Your task to perform on an android device: Add "usb-c to usb-a" to the cart on walmart.com Image 0: 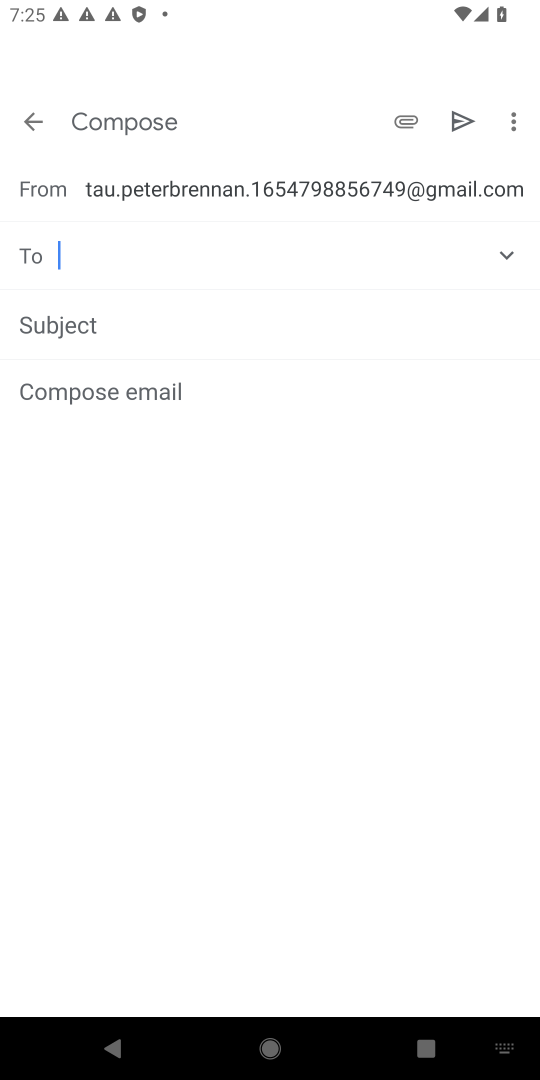
Step 0: press home button
Your task to perform on an android device: Add "usb-c to usb-a" to the cart on walmart.com Image 1: 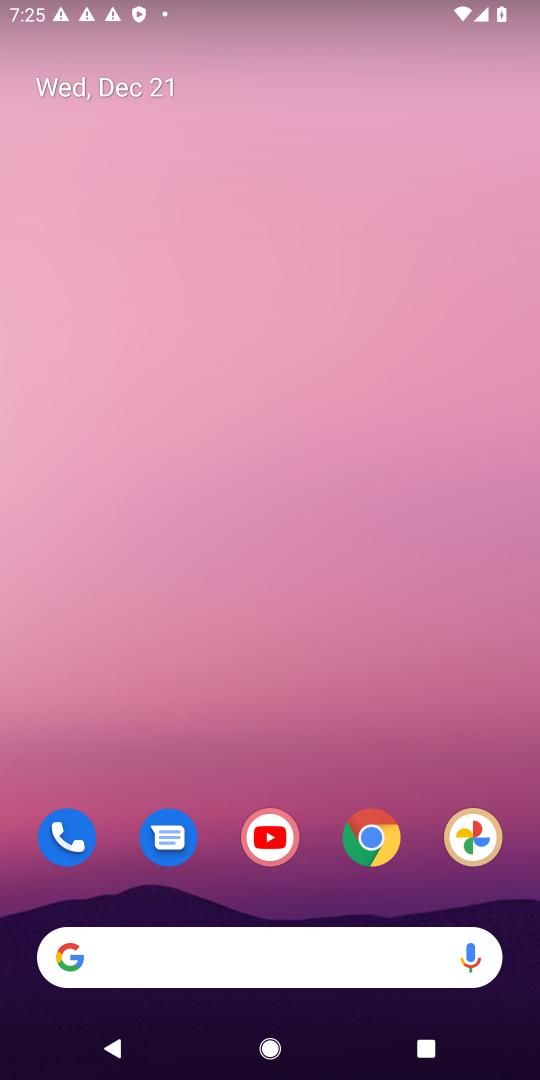
Step 1: drag from (141, 871) to (135, 408)
Your task to perform on an android device: Add "usb-c to usb-a" to the cart on walmart.com Image 2: 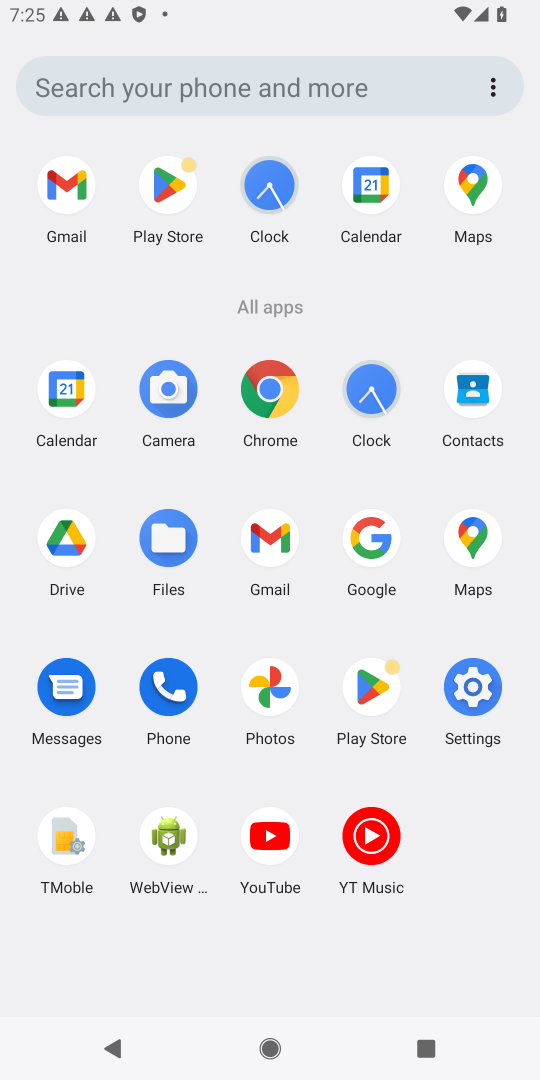
Step 2: click (373, 542)
Your task to perform on an android device: Add "usb-c to usb-a" to the cart on walmart.com Image 3: 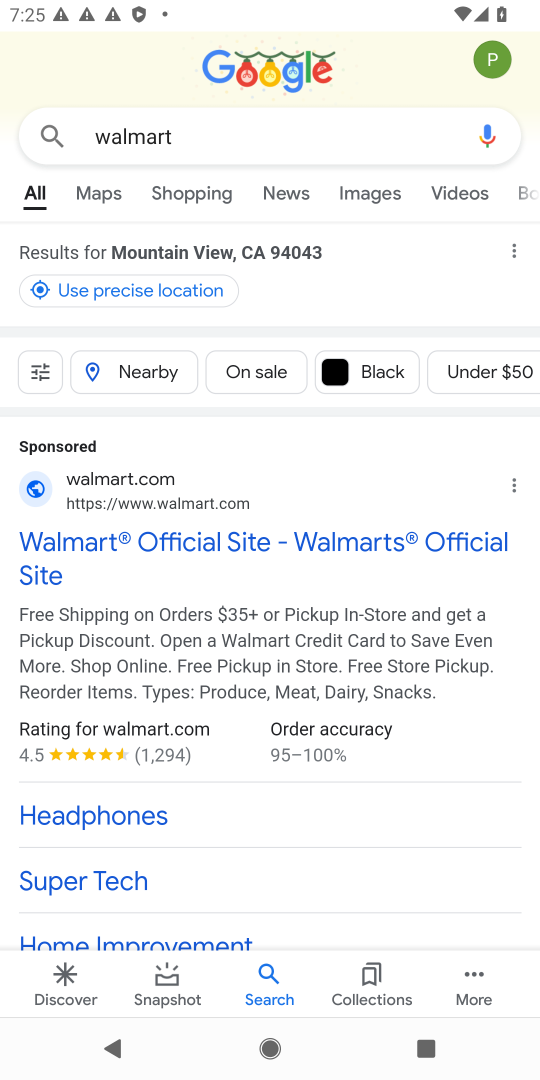
Step 3: click (178, 559)
Your task to perform on an android device: Add "usb-c to usb-a" to the cart on walmart.com Image 4: 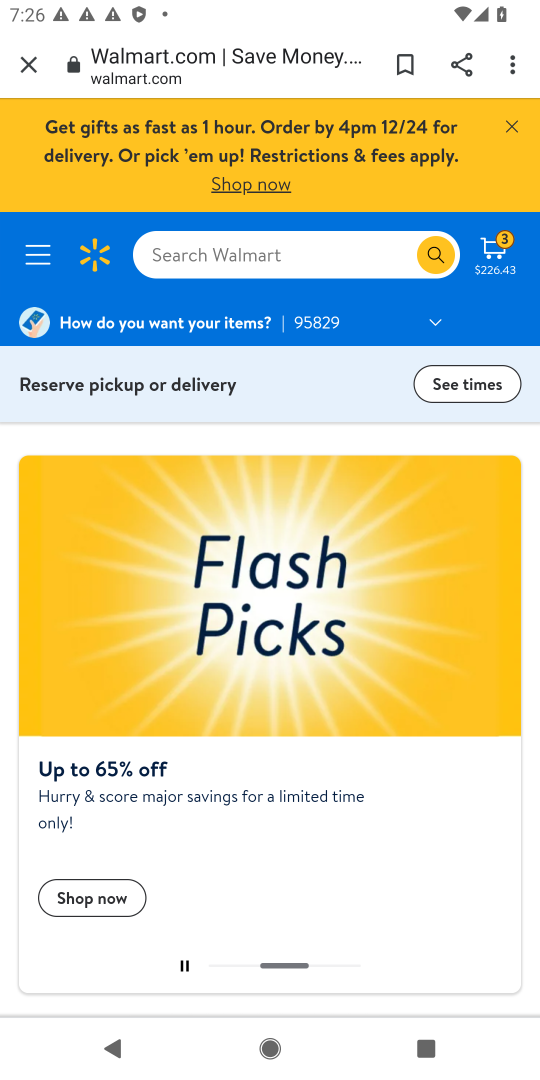
Step 4: click (283, 250)
Your task to perform on an android device: Add "usb-c to usb-a" to the cart on walmart.com Image 5: 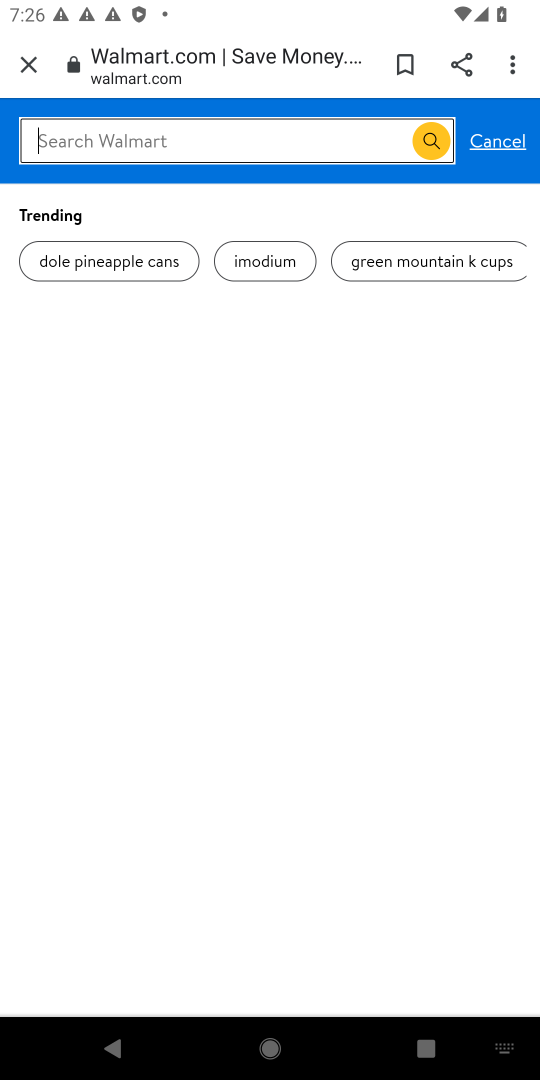
Step 5: type "usb-c to usb-a"
Your task to perform on an android device: Add "usb-c to usb-a" to the cart on walmart.com Image 6: 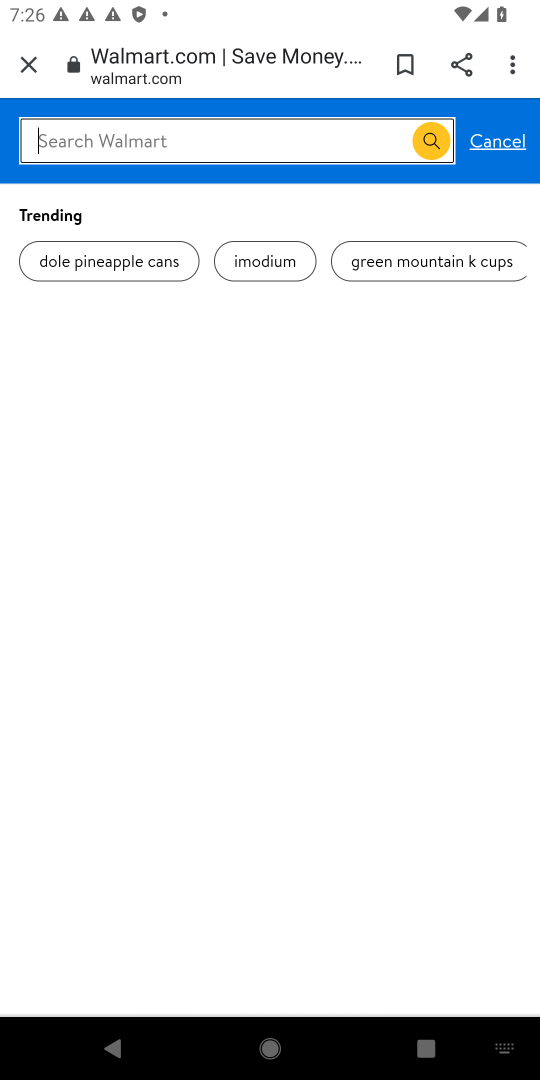
Step 6: click (421, 139)
Your task to perform on an android device: Add "usb-c to usb-a" to the cart on walmart.com Image 7: 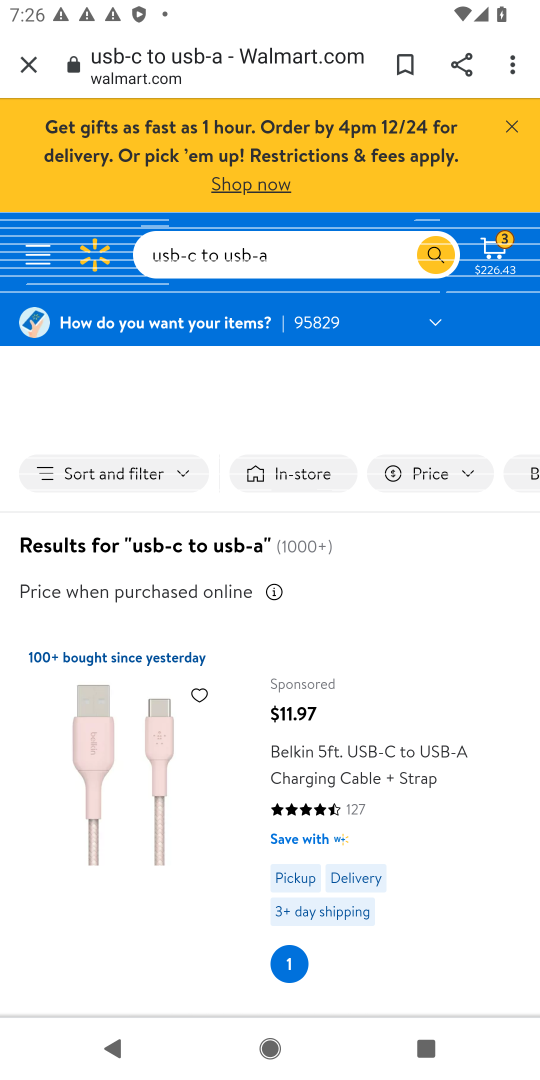
Step 7: task complete